Your task to perform on an android device: open a new tab in the chrome app Image 0: 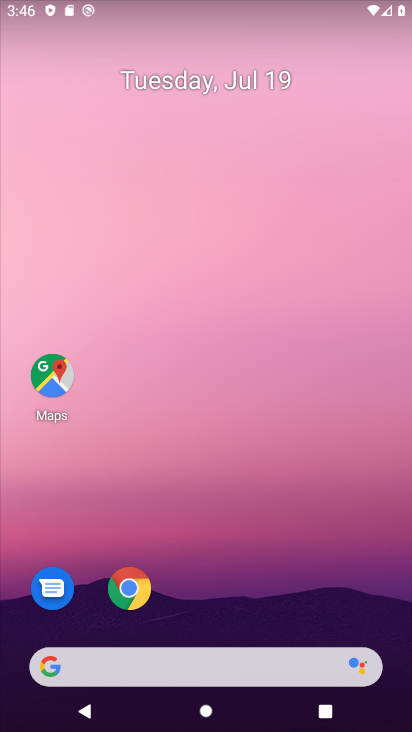
Step 0: click (125, 584)
Your task to perform on an android device: open a new tab in the chrome app Image 1: 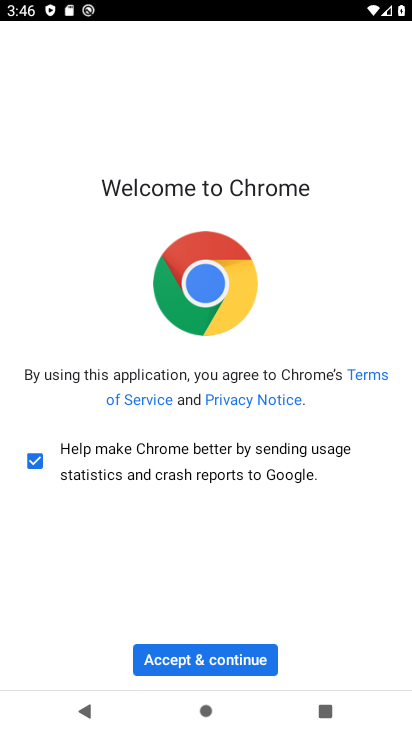
Step 1: click (186, 665)
Your task to perform on an android device: open a new tab in the chrome app Image 2: 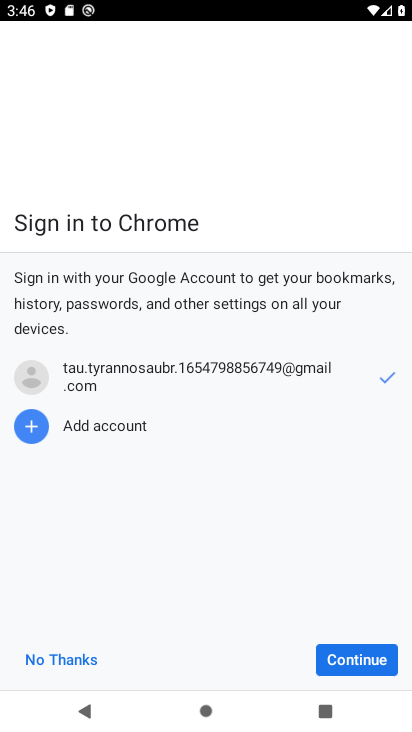
Step 2: click (364, 657)
Your task to perform on an android device: open a new tab in the chrome app Image 3: 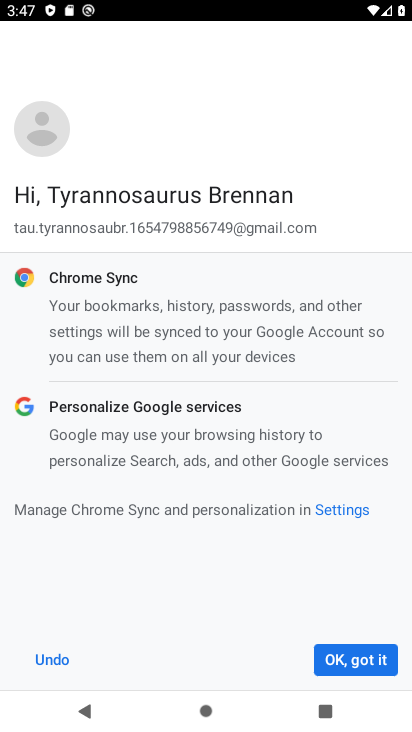
Step 3: click (364, 658)
Your task to perform on an android device: open a new tab in the chrome app Image 4: 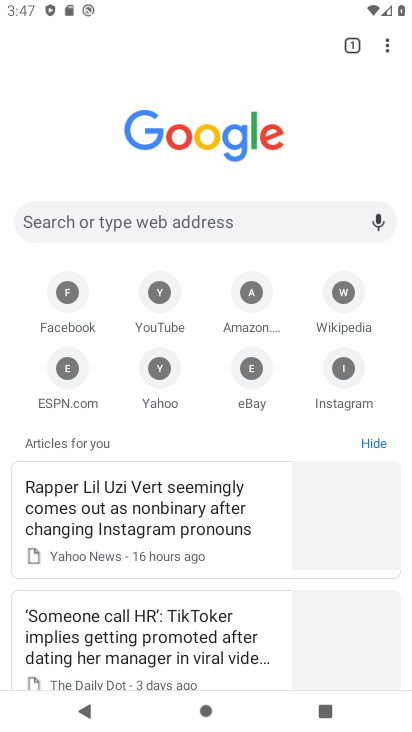
Step 4: task complete